Your task to perform on an android device: Search for vegetarian restaurants on Maps Image 0: 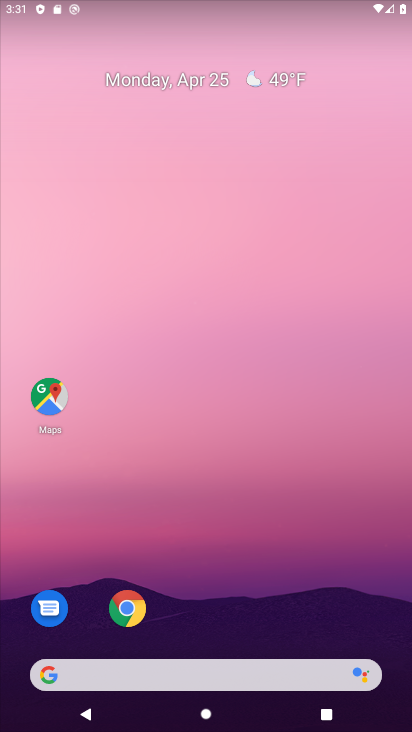
Step 0: drag from (267, 452) to (297, 218)
Your task to perform on an android device: Search for vegetarian restaurants on Maps Image 1: 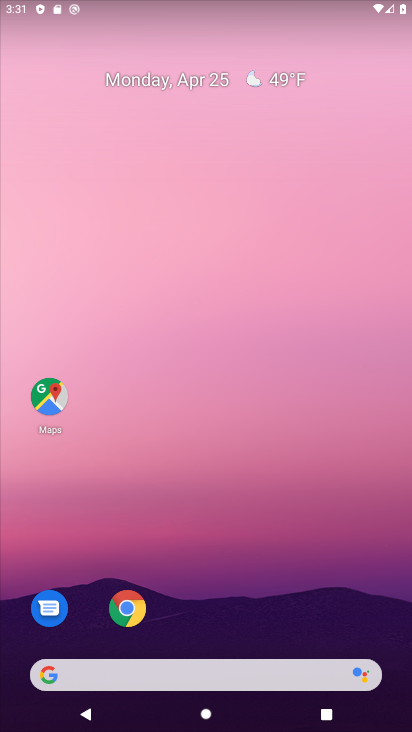
Step 1: drag from (275, 666) to (273, 194)
Your task to perform on an android device: Search for vegetarian restaurants on Maps Image 2: 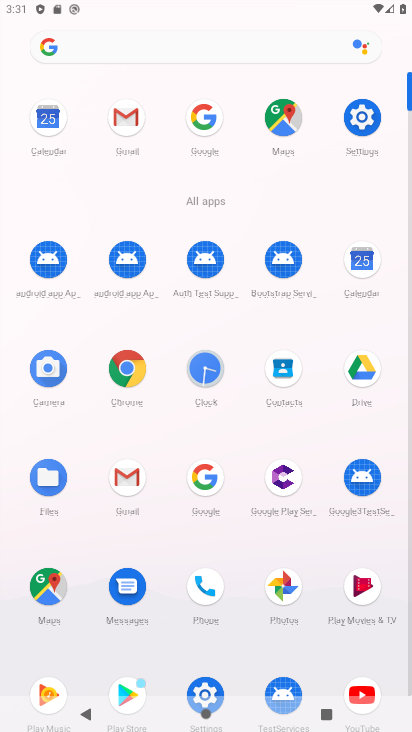
Step 2: click (64, 599)
Your task to perform on an android device: Search for vegetarian restaurants on Maps Image 3: 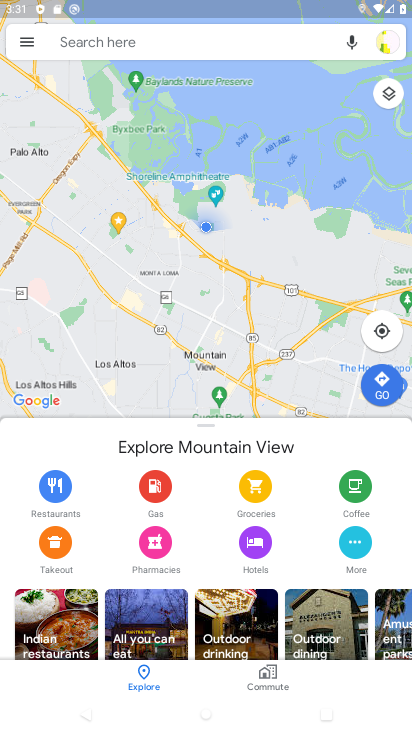
Step 3: click (214, 42)
Your task to perform on an android device: Search for vegetarian restaurants on Maps Image 4: 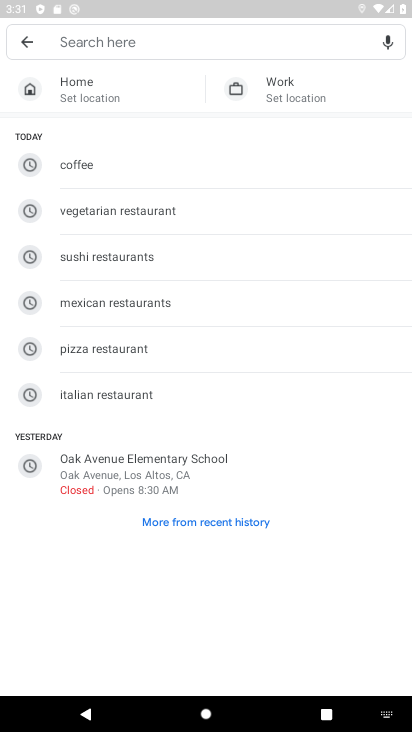
Step 4: click (253, 214)
Your task to perform on an android device: Search for vegetarian restaurants on Maps Image 5: 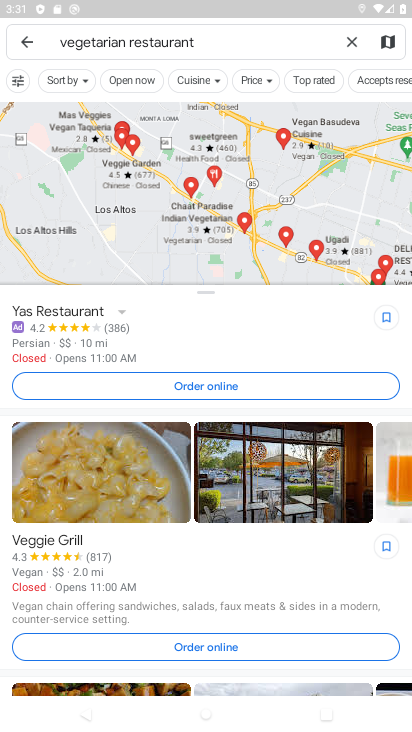
Step 5: task complete